Your task to perform on an android device: open a bookmark in the chrome app Image 0: 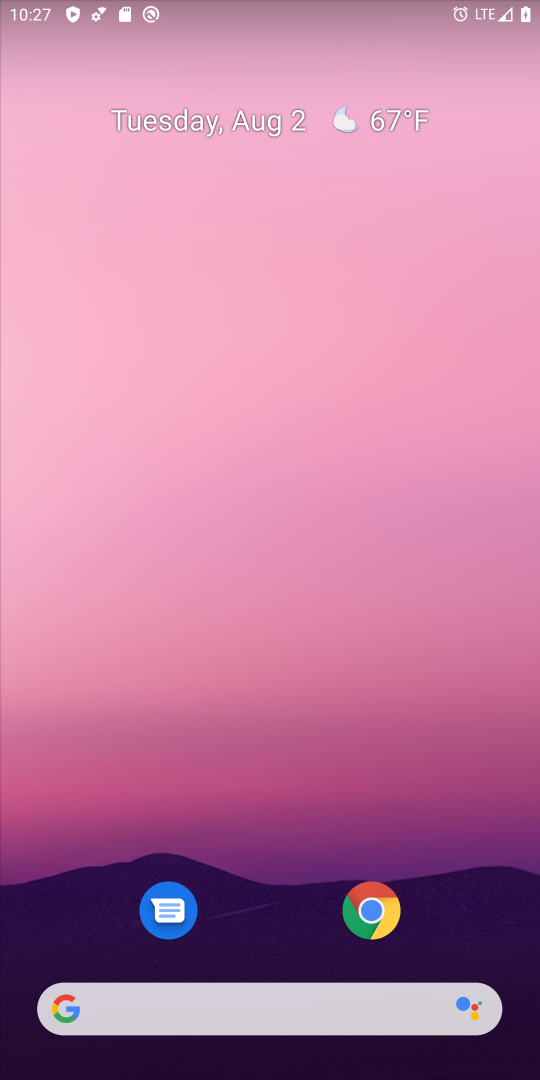
Step 0: drag from (235, 938) to (271, 265)
Your task to perform on an android device: open a bookmark in the chrome app Image 1: 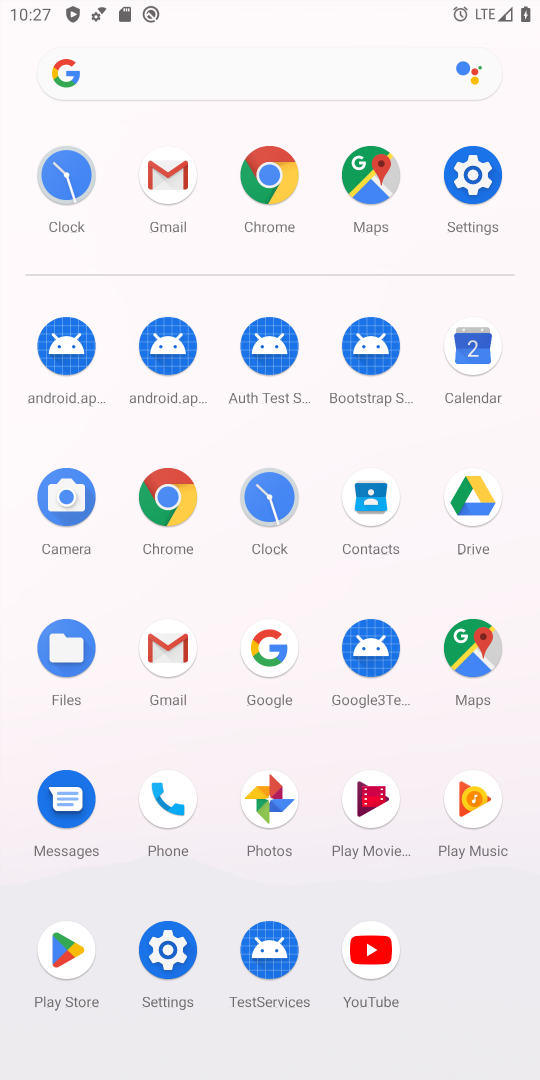
Step 1: click (271, 172)
Your task to perform on an android device: open a bookmark in the chrome app Image 2: 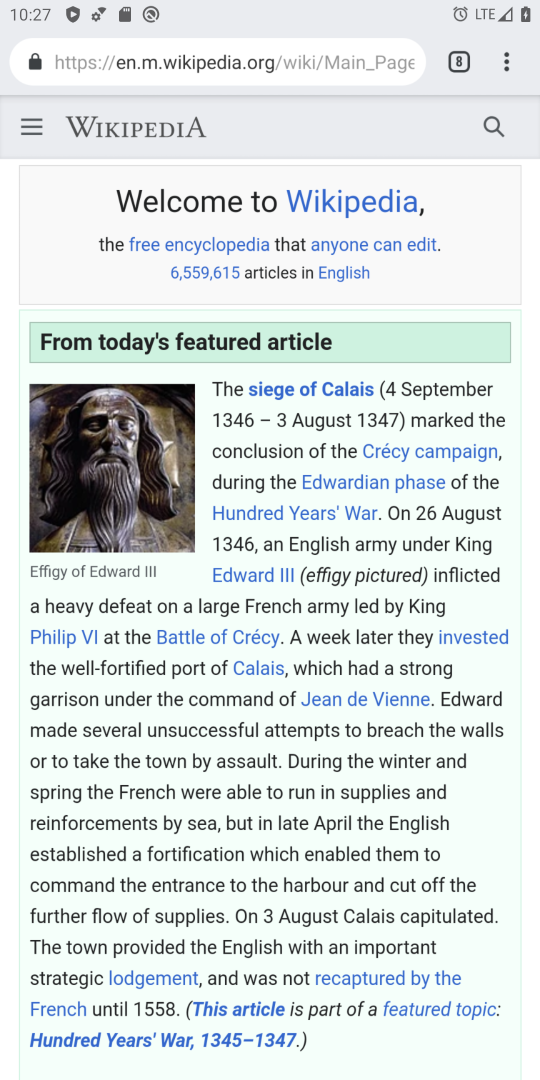
Step 2: click (518, 52)
Your task to perform on an android device: open a bookmark in the chrome app Image 3: 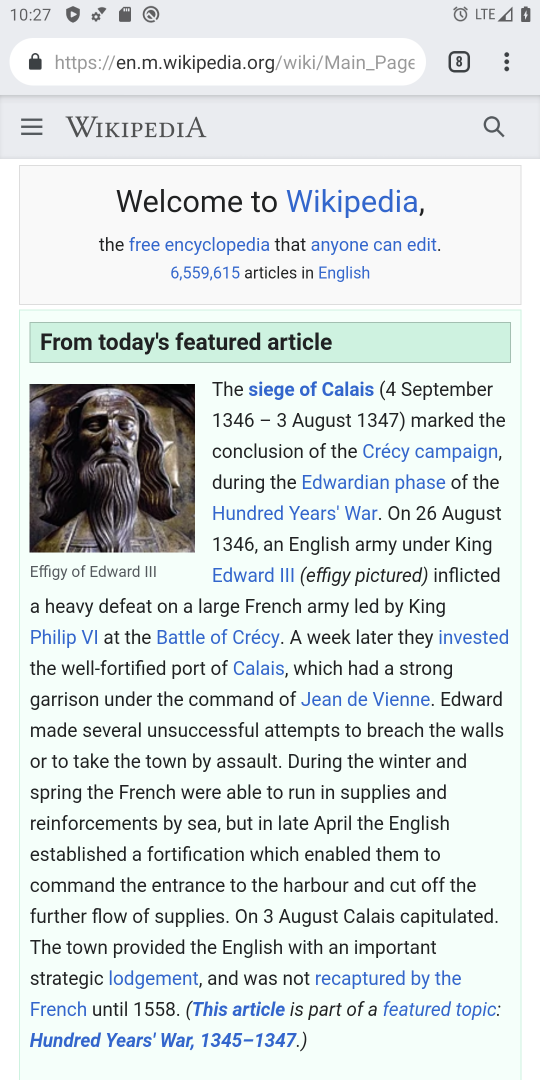
Step 3: click (516, 64)
Your task to perform on an android device: open a bookmark in the chrome app Image 4: 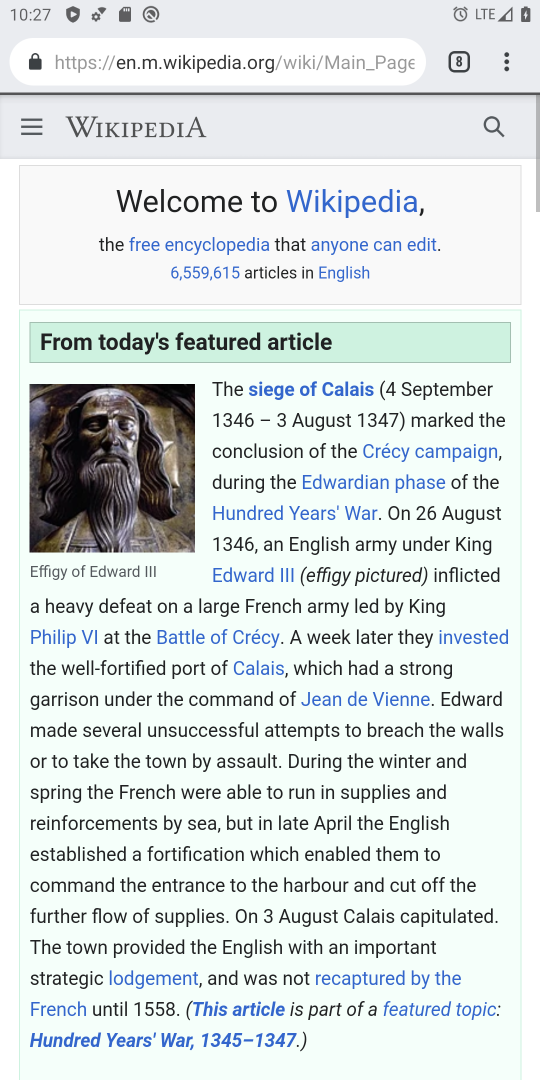
Step 4: click (516, 64)
Your task to perform on an android device: open a bookmark in the chrome app Image 5: 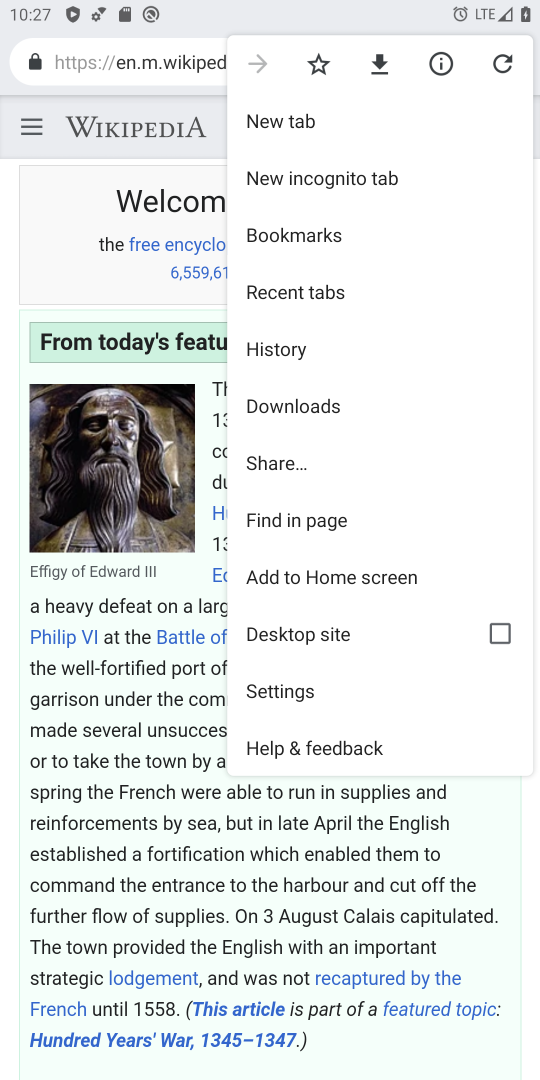
Step 5: click (316, 235)
Your task to perform on an android device: open a bookmark in the chrome app Image 6: 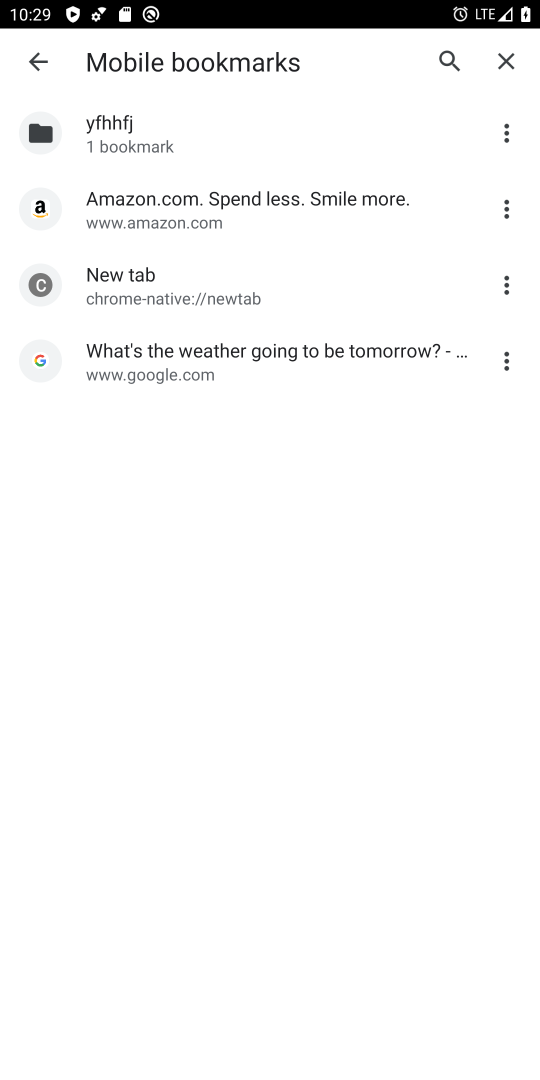
Step 6: task complete